Your task to perform on an android device: check battery use Image 0: 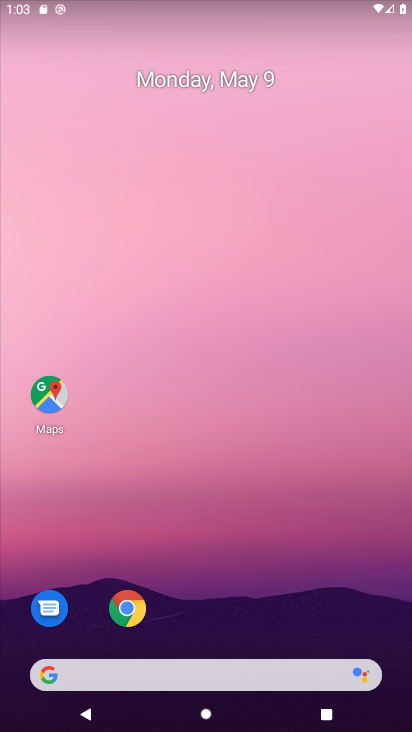
Step 0: drag from (267, 568) to (269, 492)
Your task to perform on an android device: check battery use Image 1: 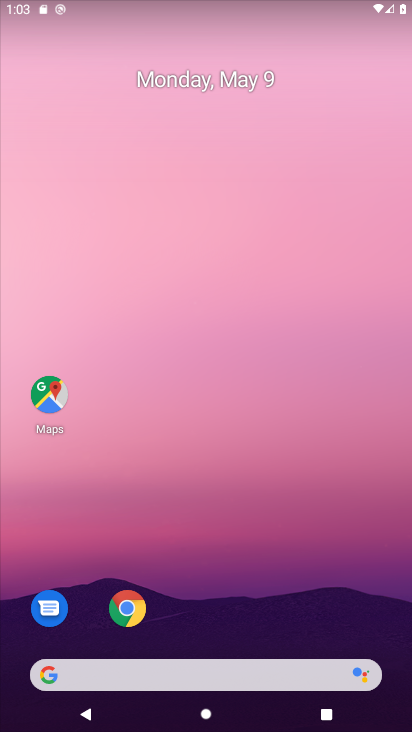
Step 1: drag from (266, 458) to (342, 0)
Your task to perform on an android device: check battery use Image 2: 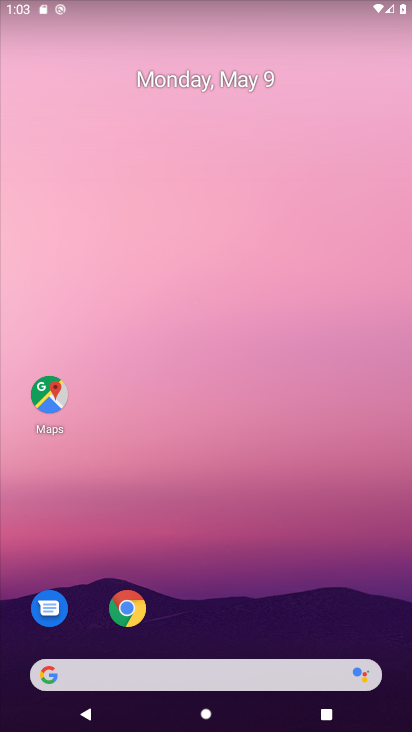
Step 2: drag from (314, 631) to (232, 95)
Your task to perform on an android device: check battery use Image 3: 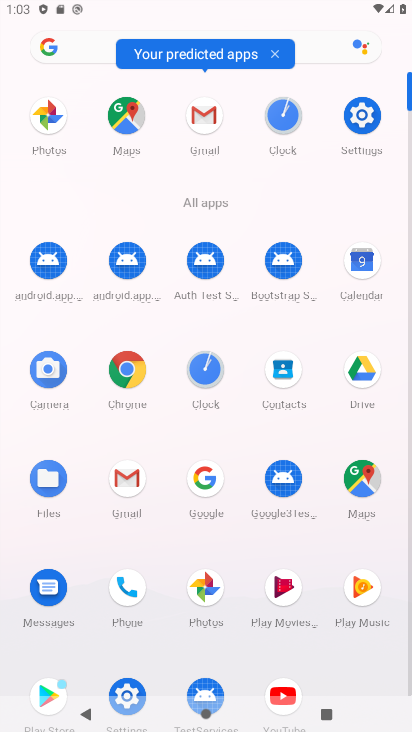
Step 3: click (365, 115)
Your task to perform on an android device: check battery use Image 4: 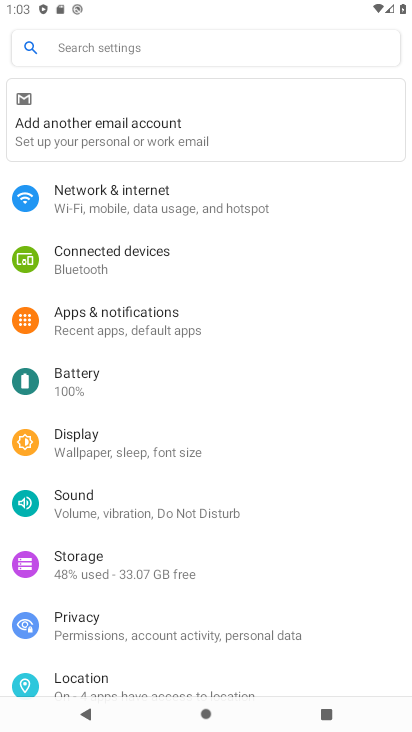
Step 4: click (154, 395)
Your task to perform on an android device: check battery use Image 5: 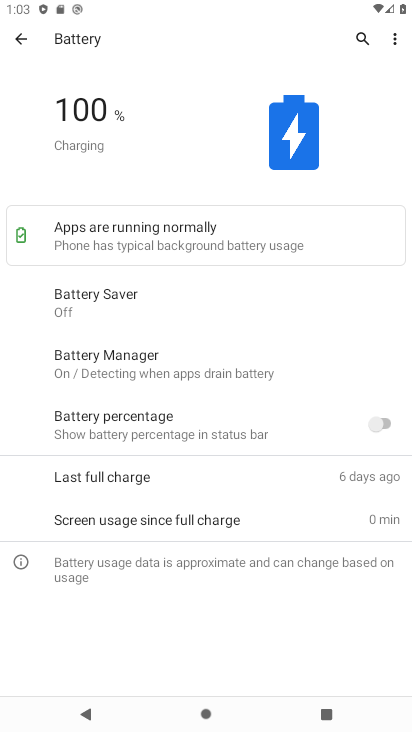
Step 5: task complete